Your task to perform on an android device: Search for vintage wall art on Etsy. Image 0: 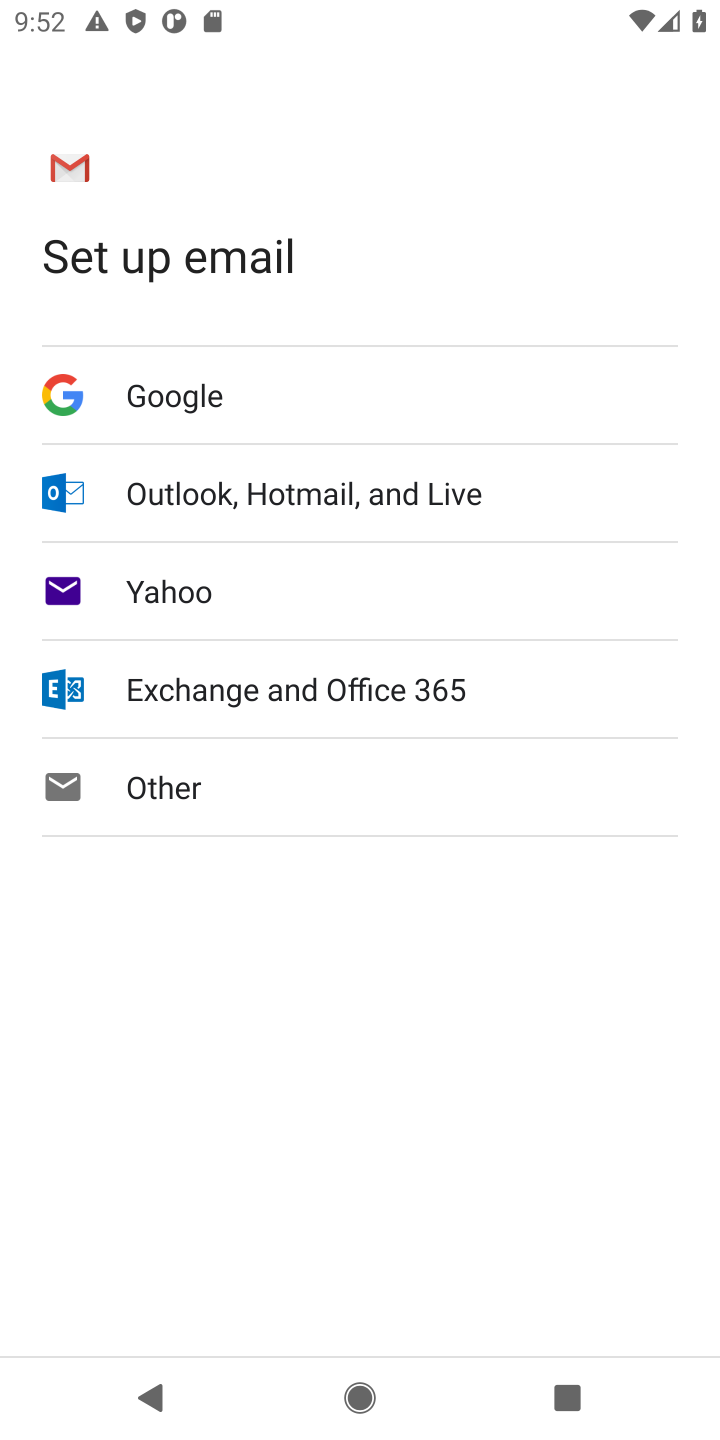
Step 0: press home button
Your task to perform on an android device: Search for vintage wall art on Etsy. Image 1: 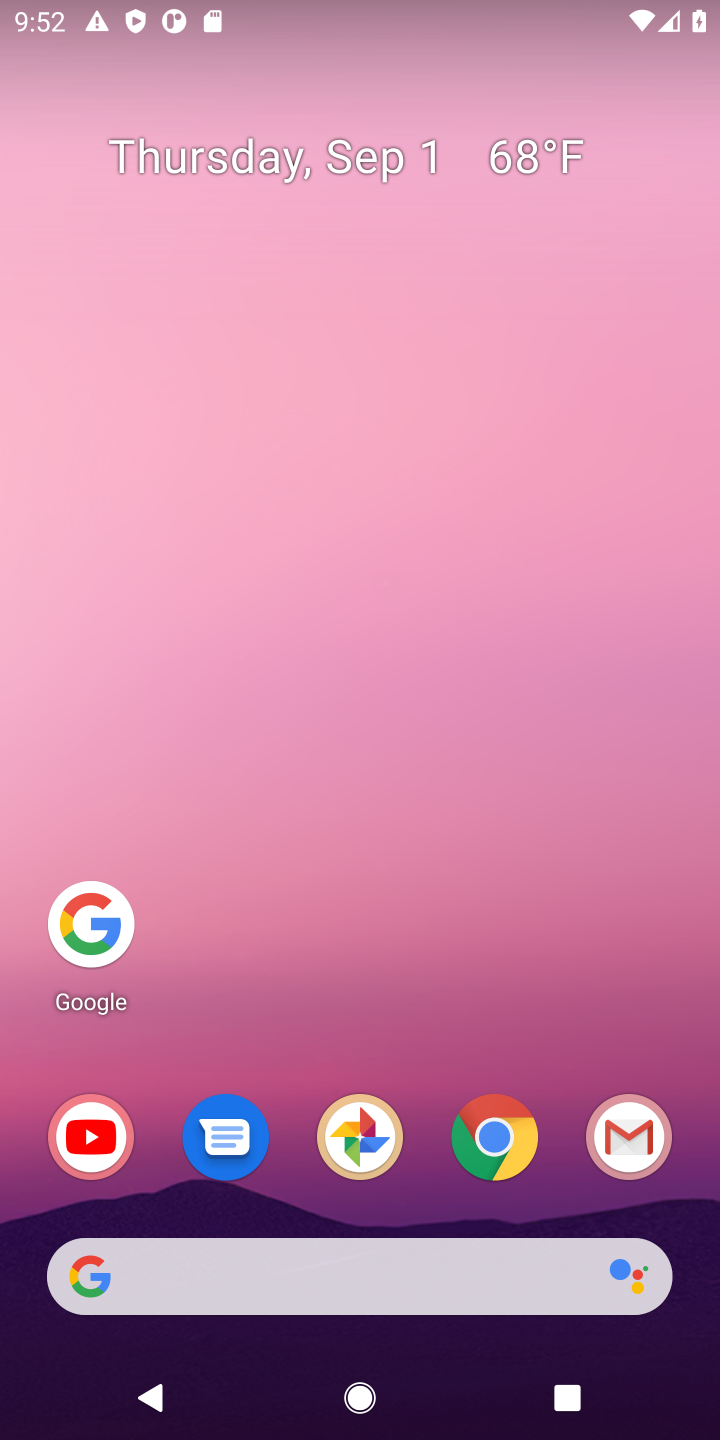
Step 1: click (84, 920)
Your task to perform on an android device: Search for vintage wall art on Etsy. Image 2: 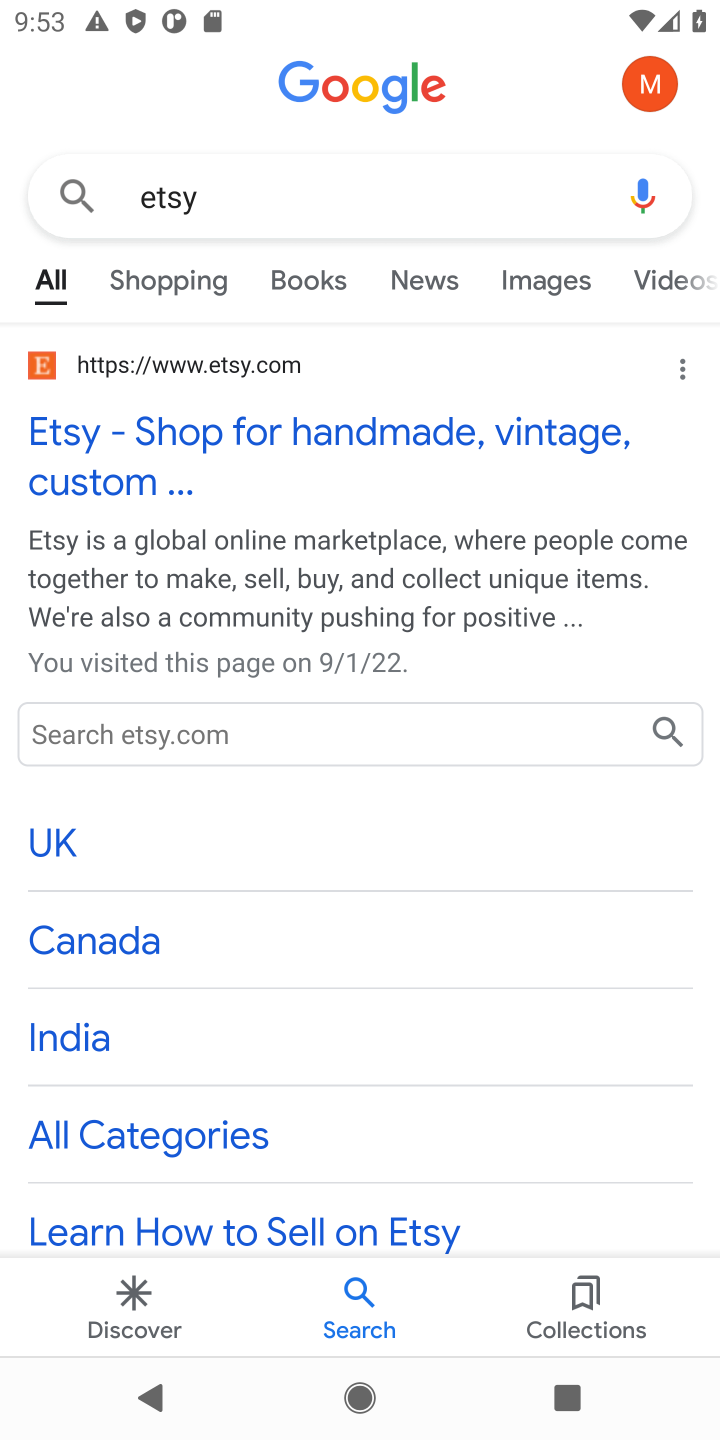
Step 2: click (174, 429)
Your task to perform on an android device: Search for vintage wall art on Etsy. Image 3: 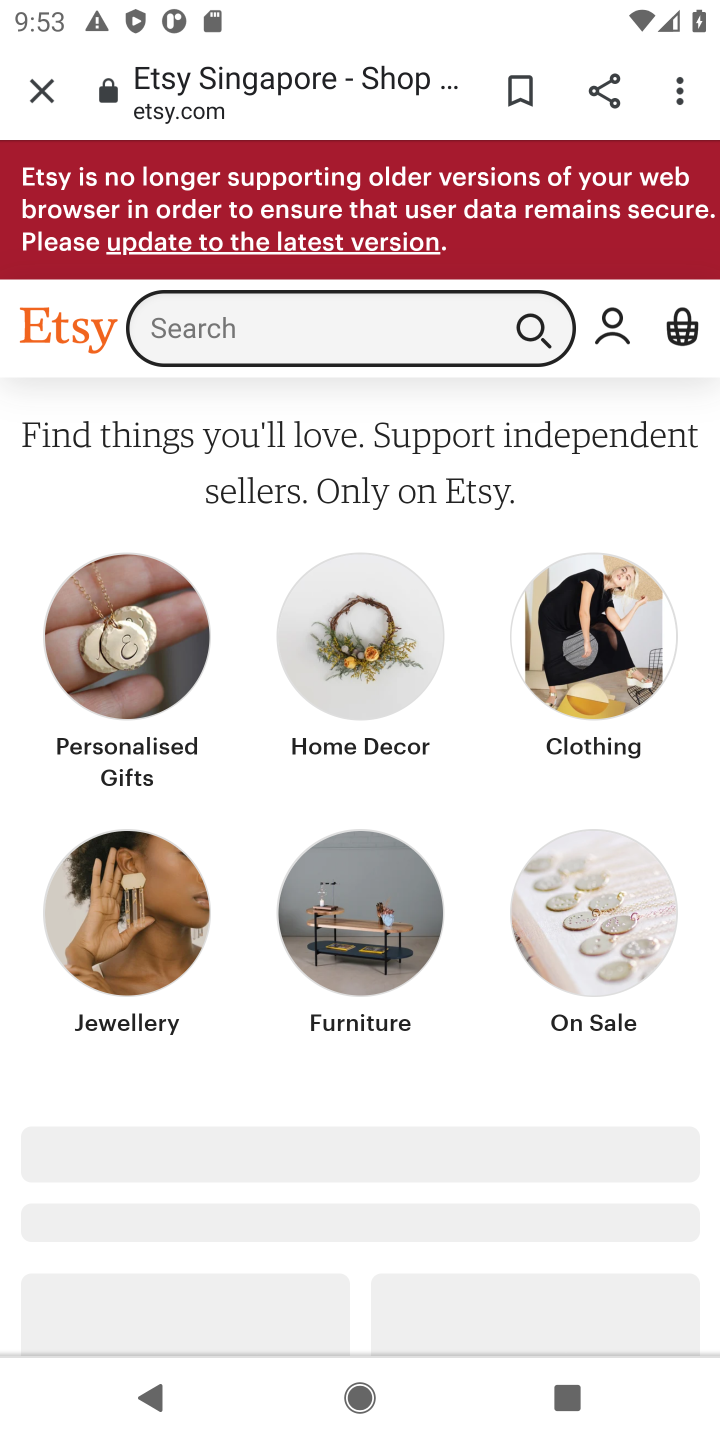
Step 3: click (245, 328)
Your task to perform on an android device: Search for vintage wall art on Etsy. Image 4: 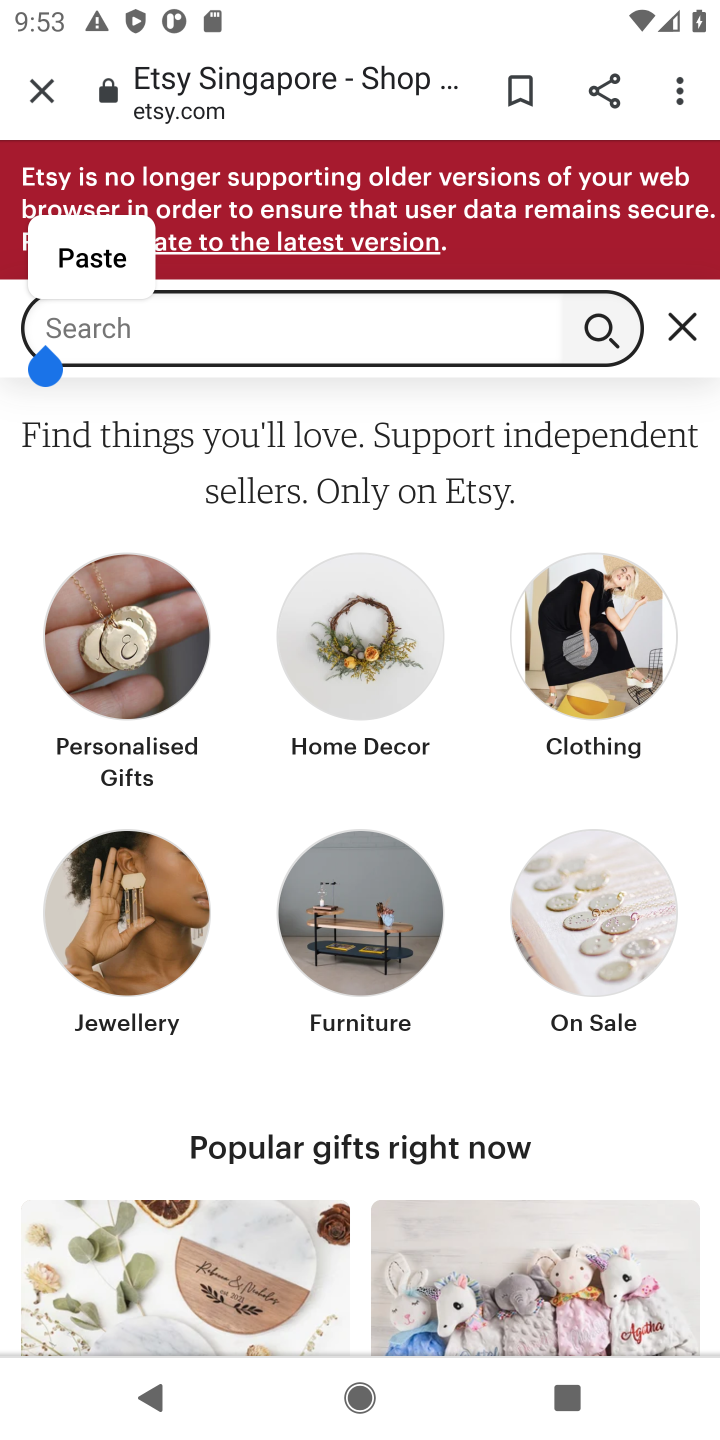
Step 4: type "vintage wall art"
Your task to perform on an android device: Search for vintage wall art on Etsy. Image 5: 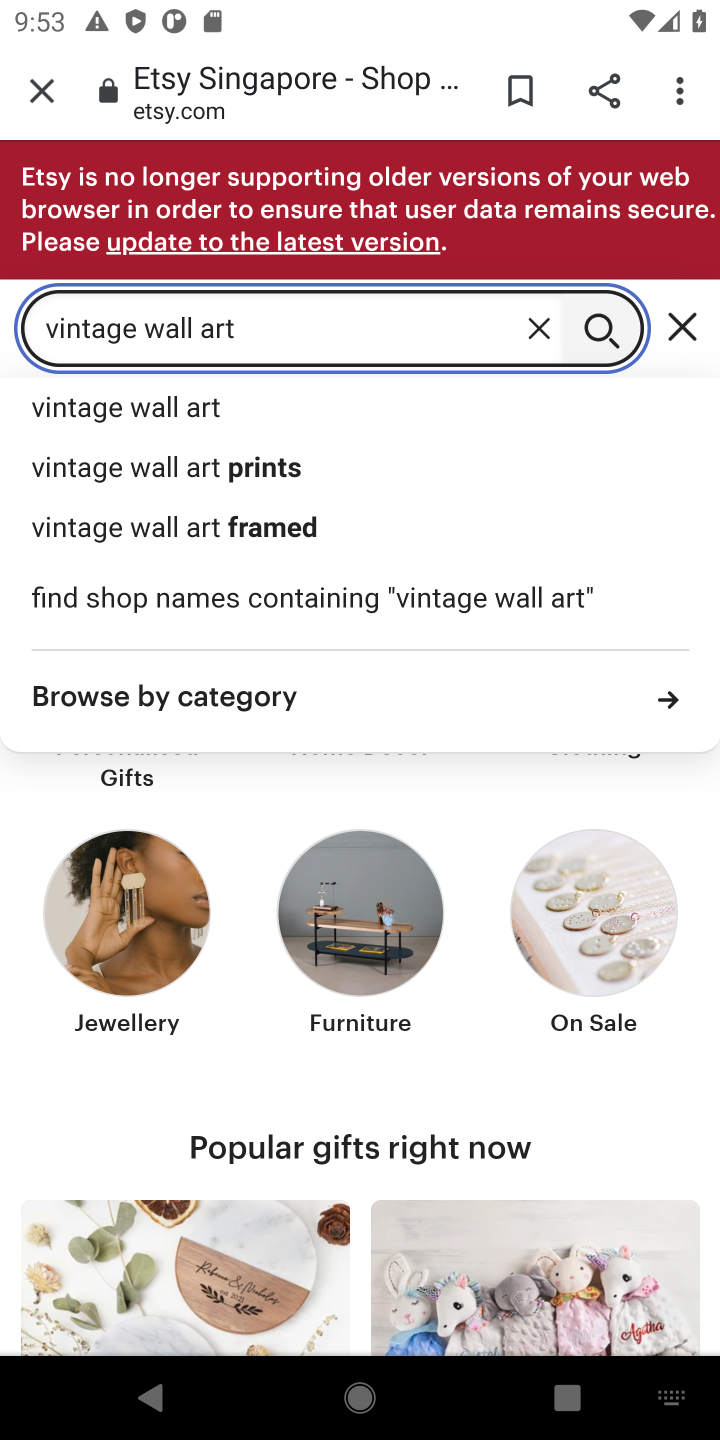
Step 5: click (604, 325)
Your task to perform on an android device: Search for vintage wall art on Etsy. Image 6: 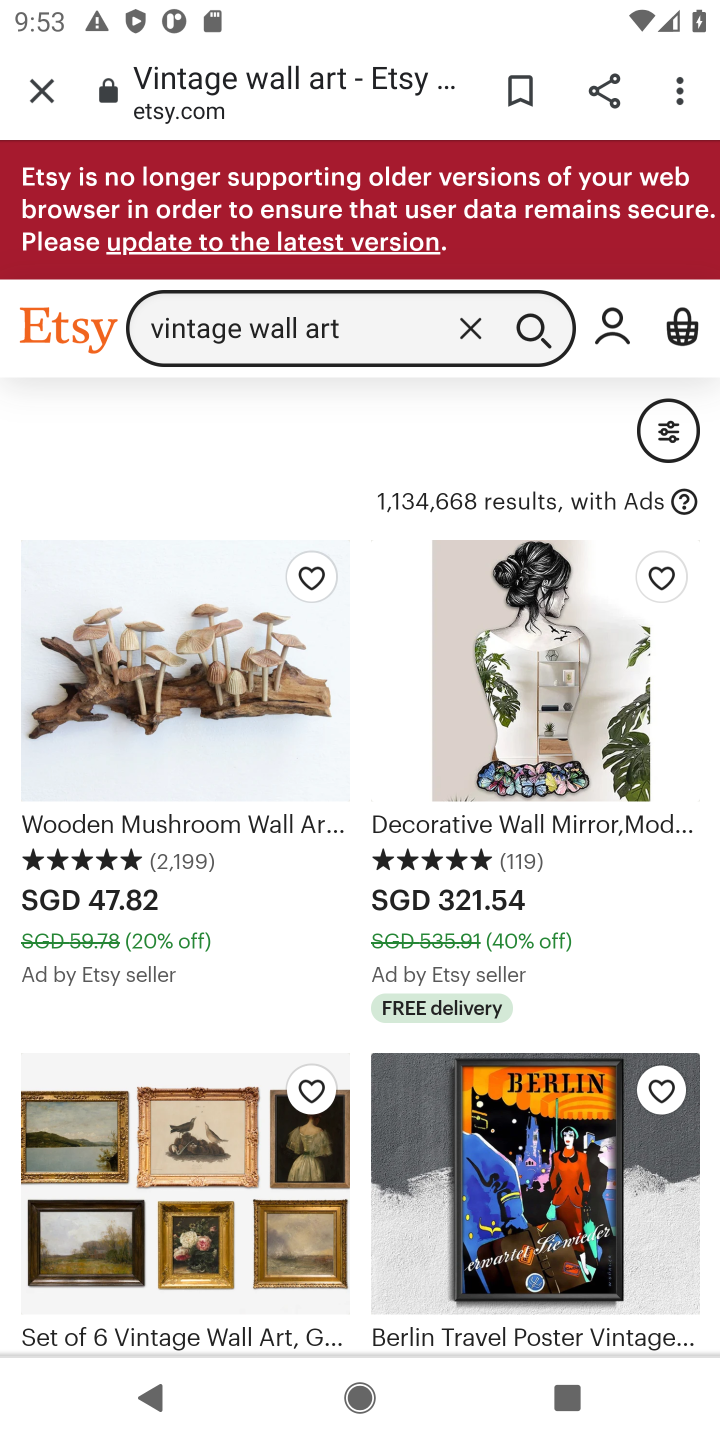
Step 6: drag from (693, 925) to (684, 593)
Your task to perform on an android device: Search for vintage wall art on Etsy. Image 7: 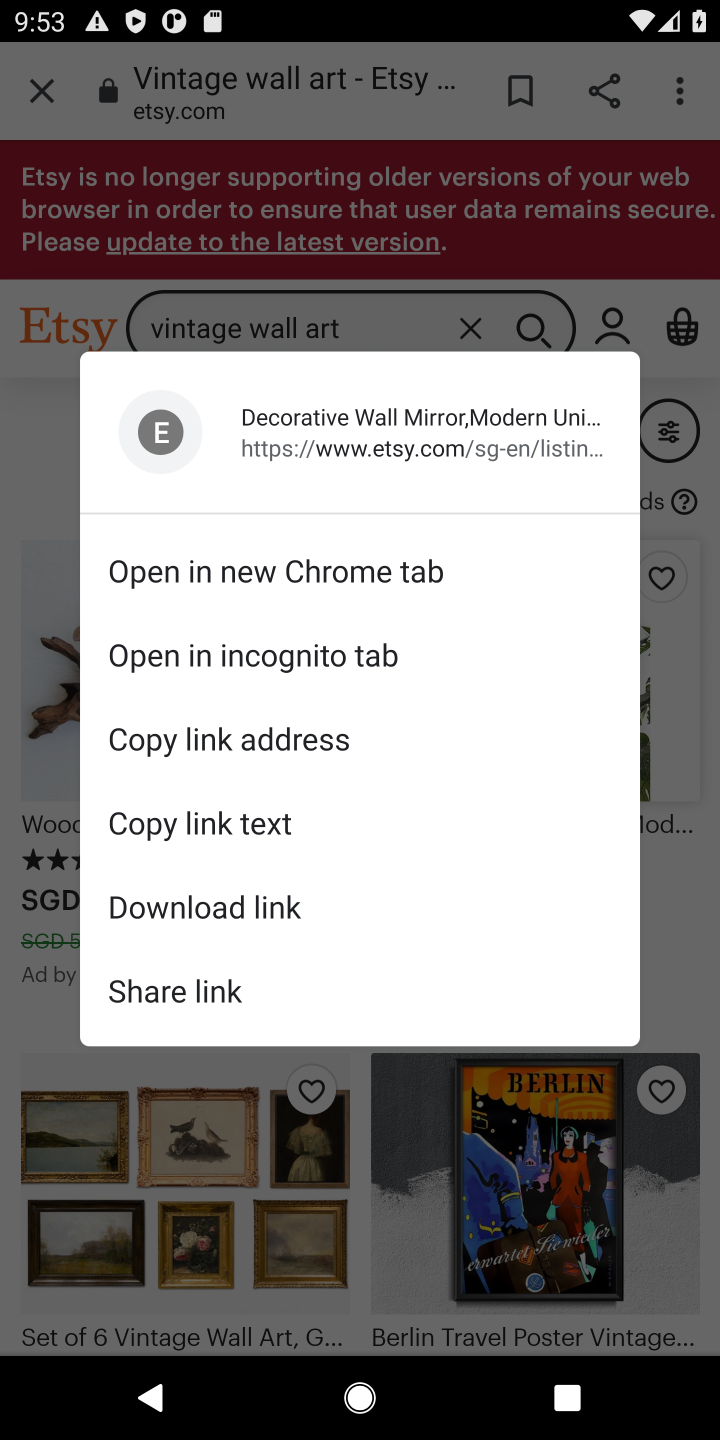
Step 7: click (360, 1227)
Your task to perform on an android device: Search for vintage wall art on Etsy. Image 8: 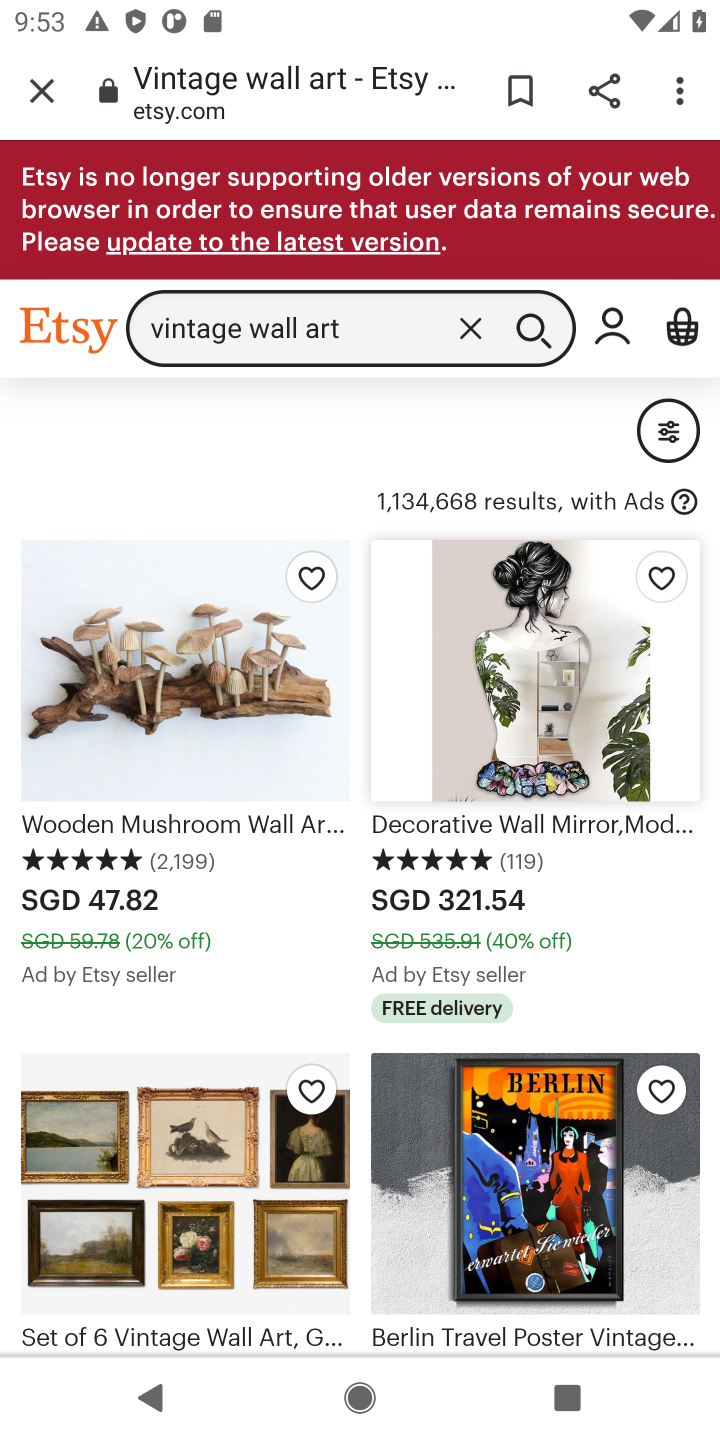
Step 8: task complete